Your task to perform on an android device: toggle airplane mode Image 0: 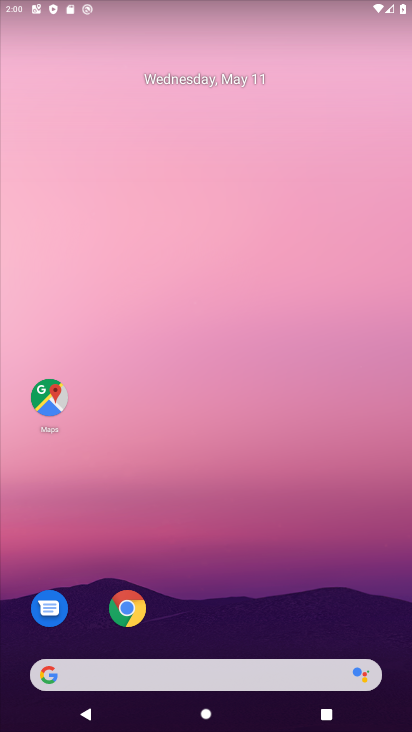
Step 0: drag from (292, 485) to (243, 196)
Your task to perform on an android device: toggle airplane mode Image 1: 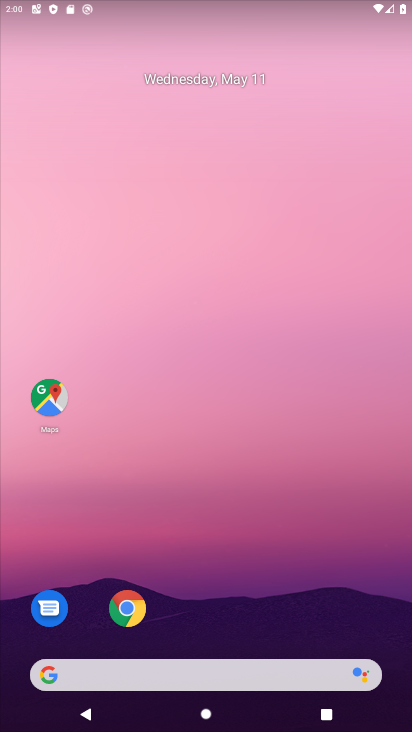
Step 1: task complete